Your task to perform on an android device: make emails show in primary in the gmail app Image 0: 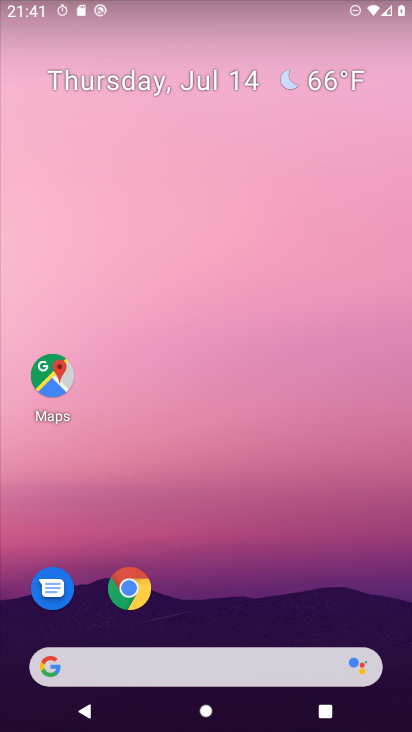
Step 0: drag from (341, 589) to (344, 141)
Your task to perform on an android device: make emails show in primary in the gmail app Image 1: 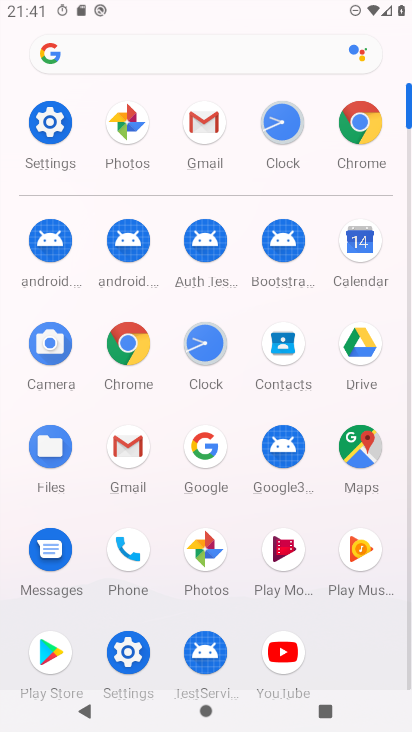
Step 1: click (201, 132)
Your task to perform on an android device: make emails show in primary in the gmail app Image 2: 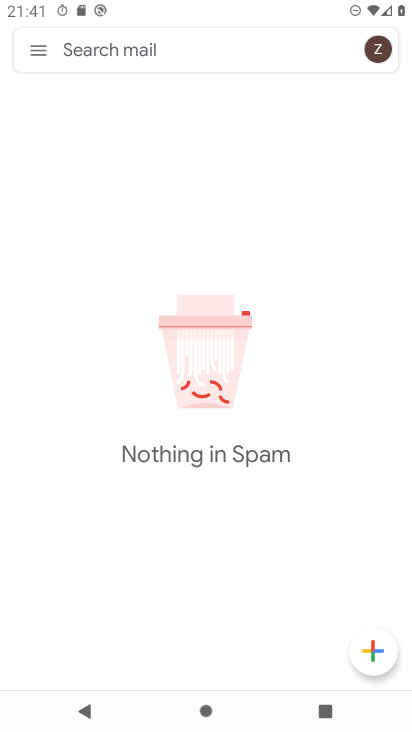
Step 2: click (39, 48)
Your task to perform on an android device: make emails show in primary in the gmail app Image 3: 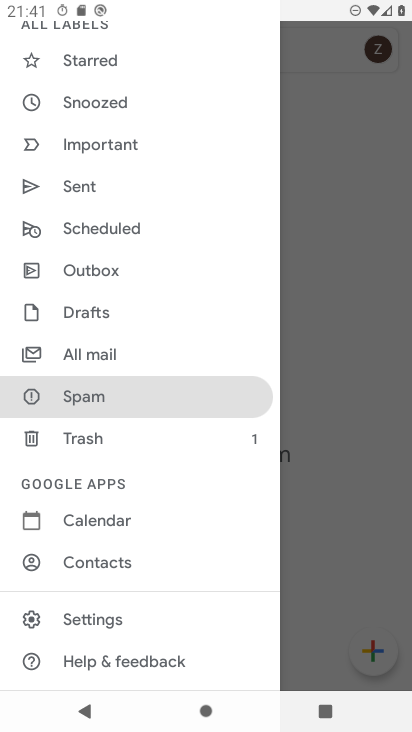
Step 3: click (126, 616)
Your task to perform on an android device: make emails show in primary in the gmail app Image 4: 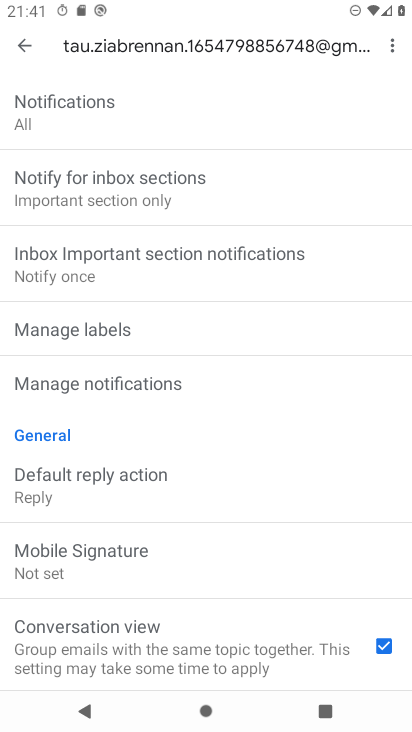
Step 4: drag from (332, 472) to (333, 362)
Your task to perform on an android device: make emails show in primary in the gmail app Image 5: 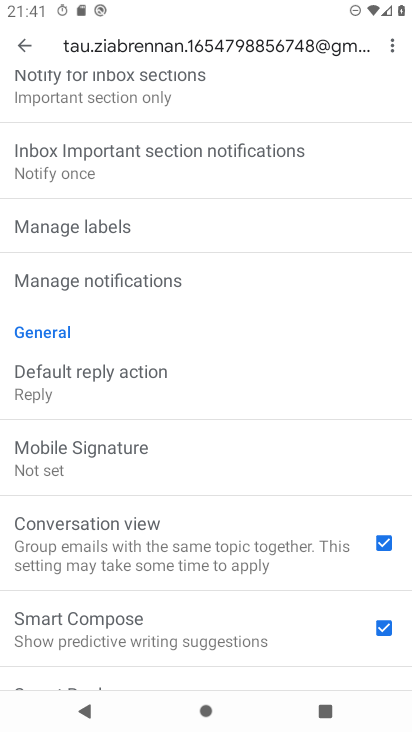
Step 5: drag from (297, 490) to (320, 365)
Your task to perform on an android device: make emails show in primary in the gmail app Image 6: 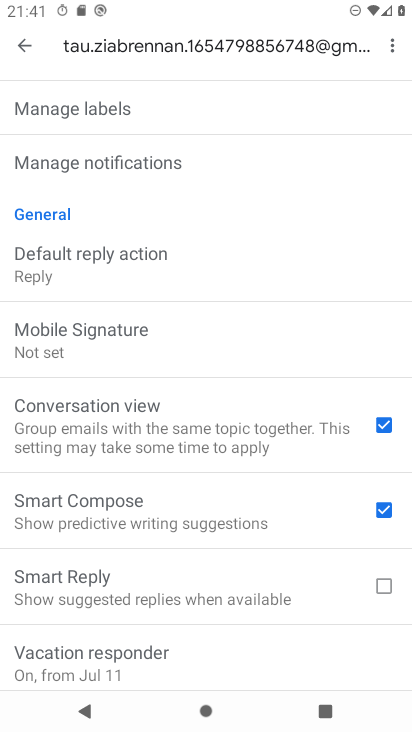
Step 6: drag from (293, 513) to (313, 317)
Your task to perform on an android device: make emails show in primary in the gmail app Image 7: 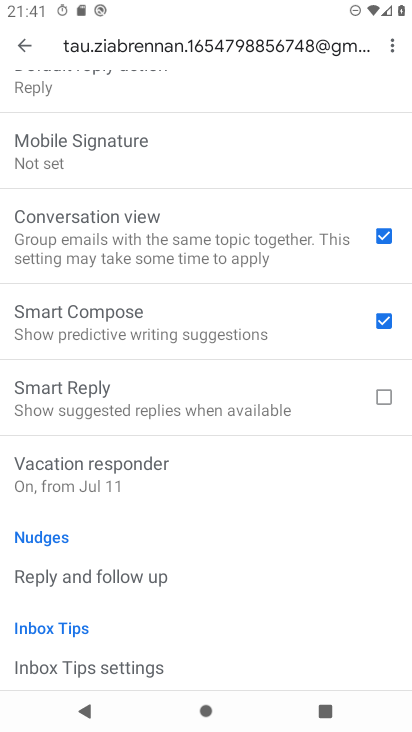
Step 7: drag from (305, 555) to (308, 428)
Your task to perform on an android device: make emails show in primary in the gmail app Image 8: 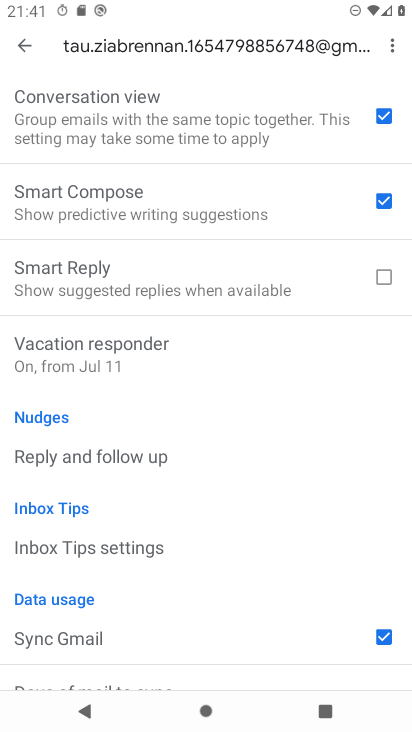
Step 8: drag from (307, 318) to (303, 419)
Your task to perform on an android device: make emails show in primary in the gmail app Image 9: 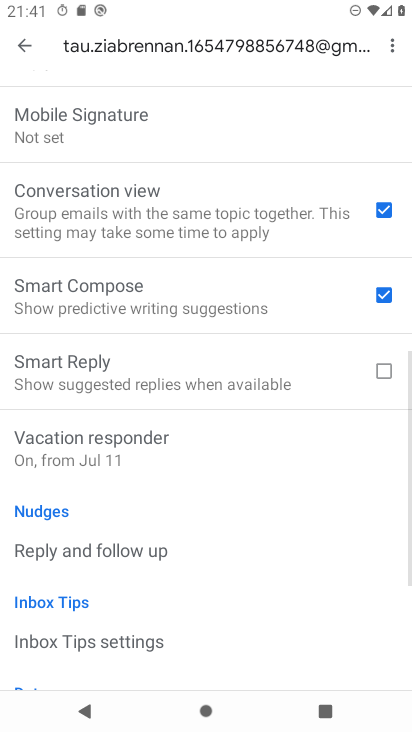
Step 9: drag from (303, 278) to (300, 375)
Your task to perform on an android device: make emails show in primary in the gmail app Image 10: 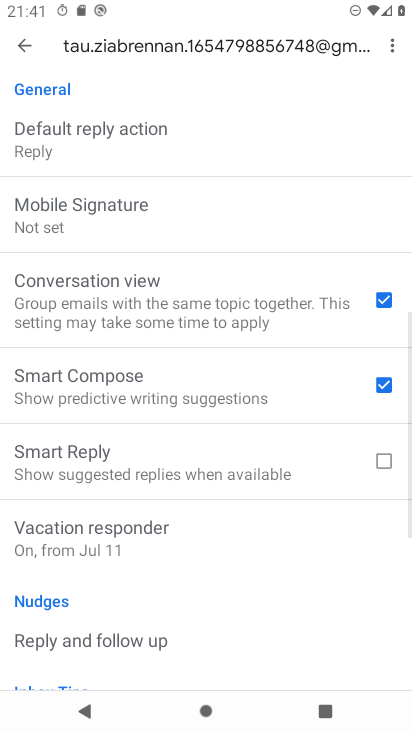
Step 10: drag from (300, 276) to (299, 369)
Your task to perform on an android device: make emails show in primary in the gmail app Image 11: 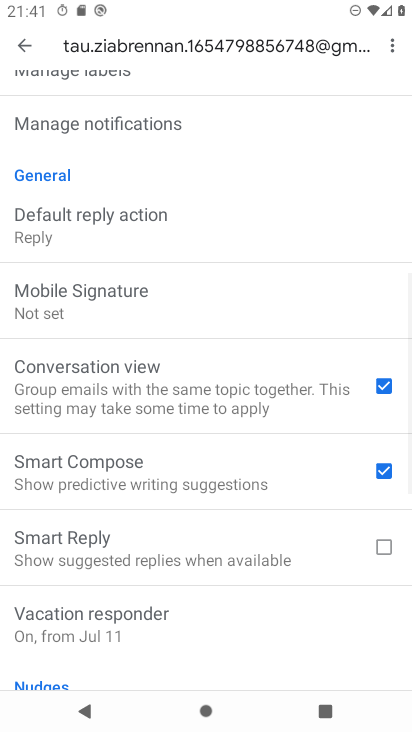
Step 11: drag from (299, 265) to (299, 364)
Your task to perform on an android device: make emails show in primary in the gmail app Image 12: 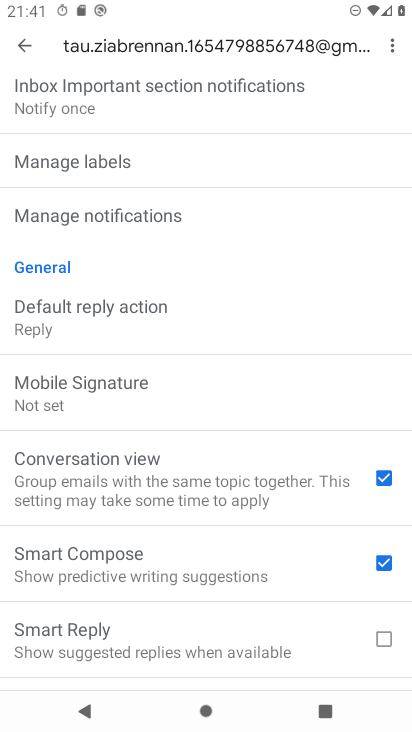
Step 12: drag from (299, 260) to (298, 375)
Your task to perform on an android device: make emails show in primary in the gmail app Image 13: 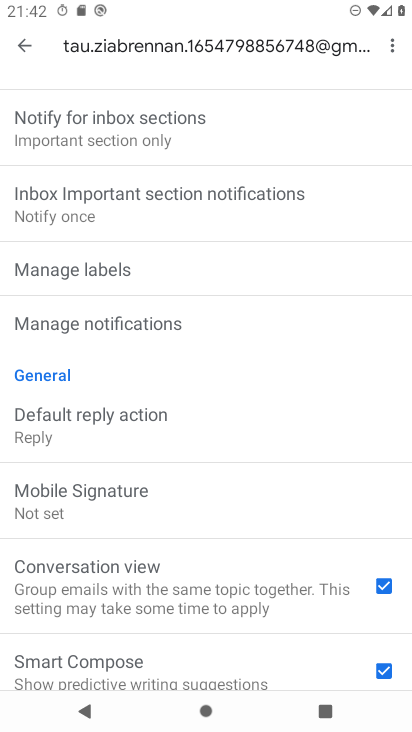
Step 13: drag from (297, 279) to (298, 419)
Your task to perform on an android device: make emails show in primary in the gmail app Image 14: 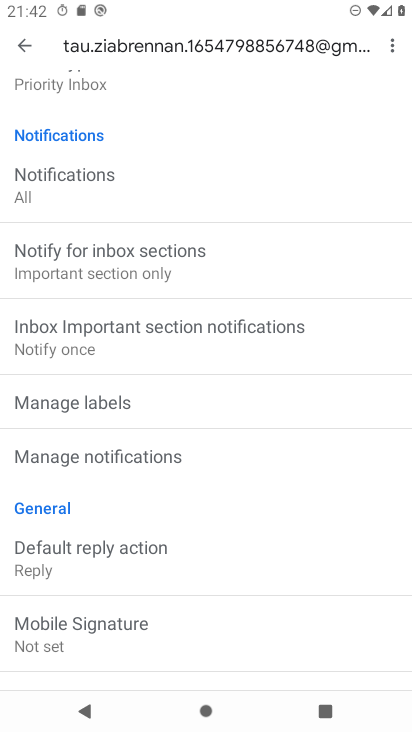
Step 14: drag from (304, 216) to (302, 427)
Your task to perform on an android device: make emails show in primary in the gmail app Image 15: 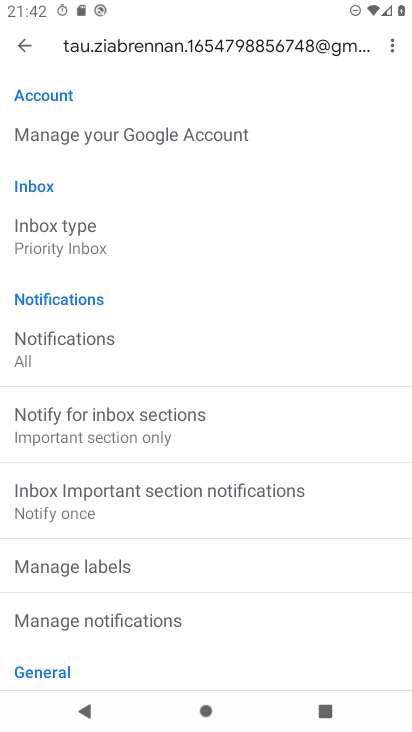
Step 15: click (120, 243)
Your task to perform on an android device: make emails show in primary in the gmail app Image 16: 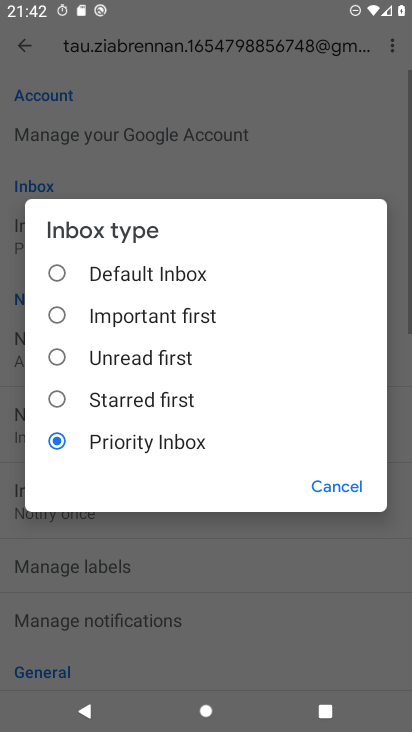
Step 16: click (133, 258)
Your task to perform on an android device: make emails show in primary in the gmail app Image 17: 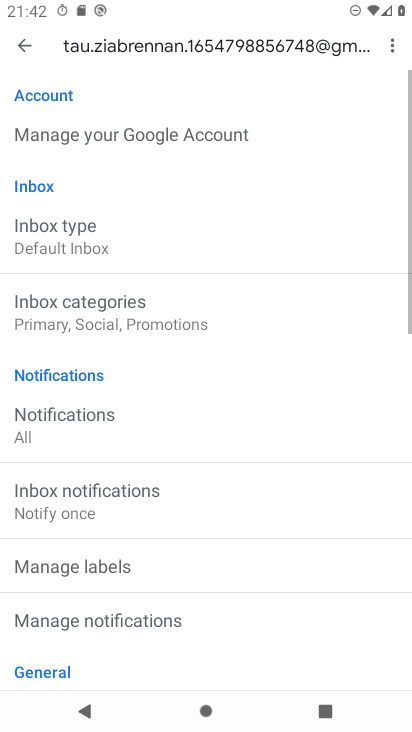
Step 17: click (135, 314)
Your task to perform on an android device: make emails show in primary in the gmail app Image 18: 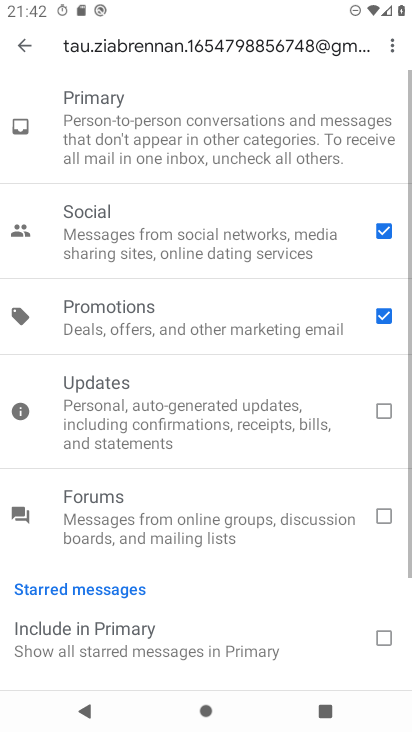
Step 18: click (385, 317)
Your task to perform on an android device: make emails show in primary in the gmail app Image 19: 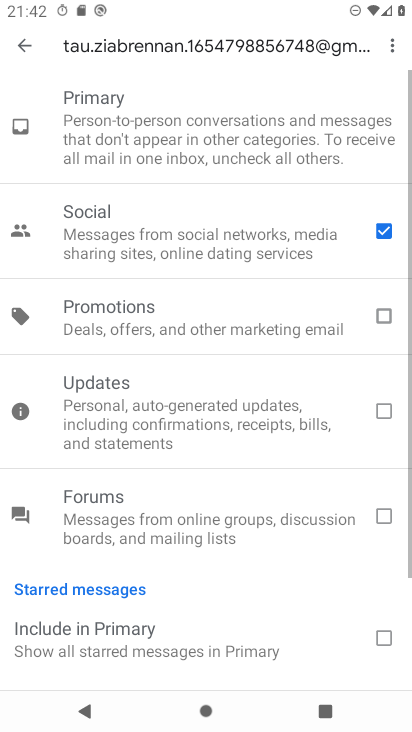
Step 19: click (383, 241)
Your task to perform on an android device: make emails show in primary in the gmail app Image 20: 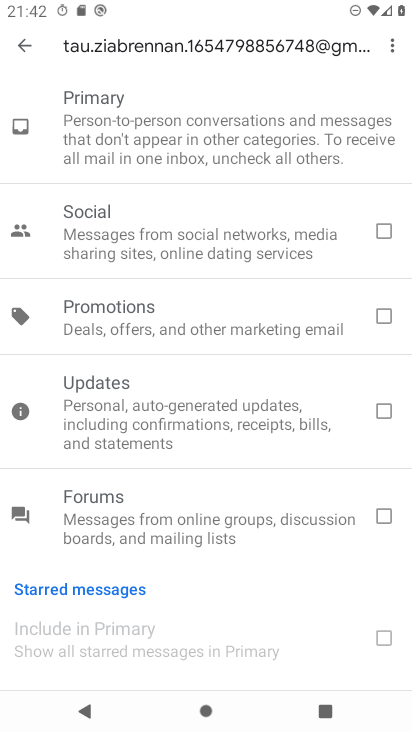
Step 20: task complete